Your task to perform on an android device: Open the calendar and show me this week's events? Image 0: 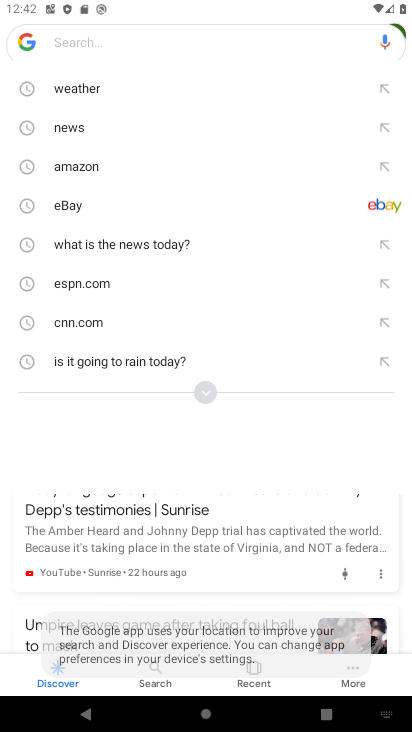
Step 0: press home button
Your task to perform on an android device: Open the calendar and show me this week's events? Image 1: 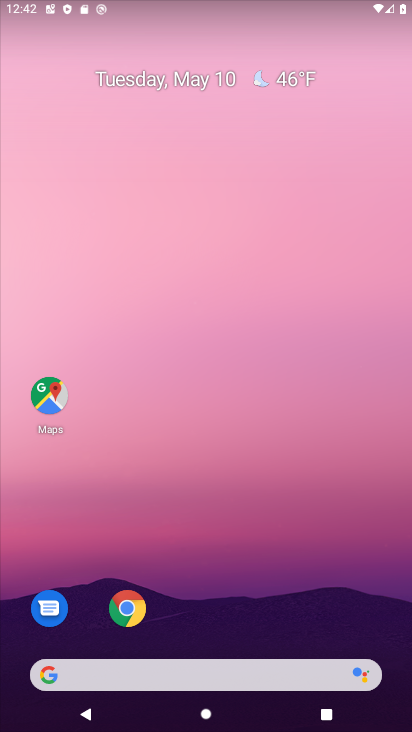
Step 1: drag from (233, 599) to (252, 42)
Your task to perform on an android device: Open the calendar and show me this week's events? Image 2: 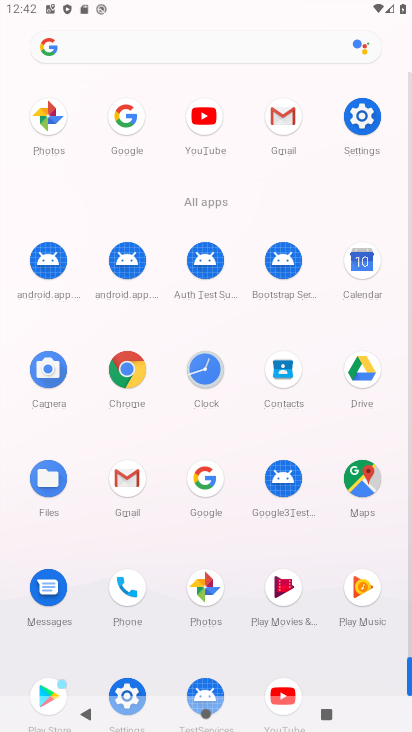
Step 2: click (356, 261)
Your task to perform on an android device: Open the calendar and show me this week's events? Image 3: 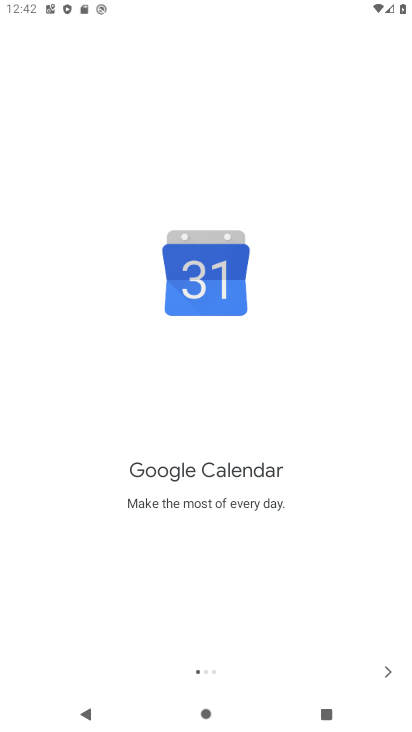
Step 3: click (386, 676)
Your task to perform on an android device: Open the calendar and show me this week's events? Image 4: 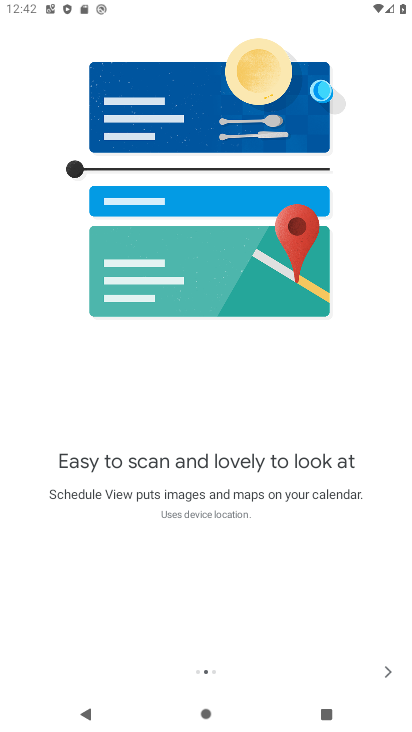
Step 4: click (386, 676)
Your task to perform on an android device: Open the calendar and show me this week's events? Image 5: 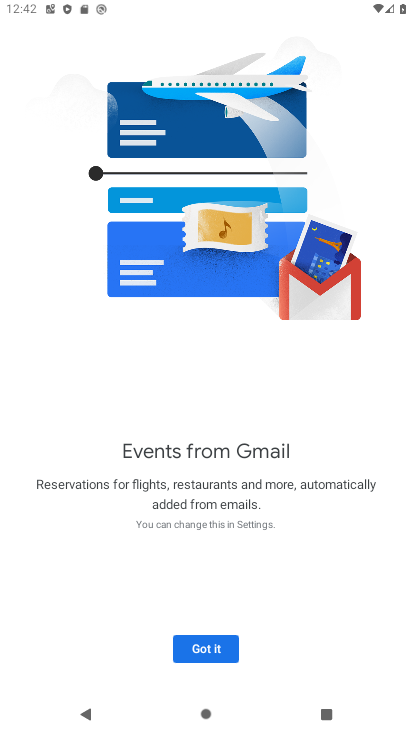
Step 5: click (217, 652)
Your task to perform on an android device: Open the calendar and show me this week's events? Image 6: 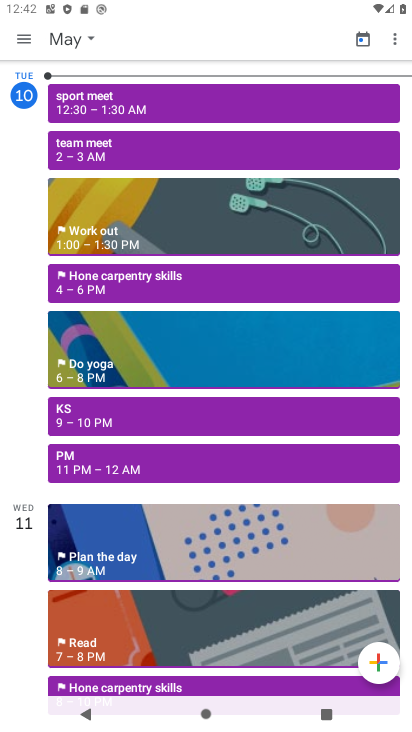
Step 6: click (81, 38)
Your task to perform on an android device: Open the calendar and show me this week's events? Image 7: 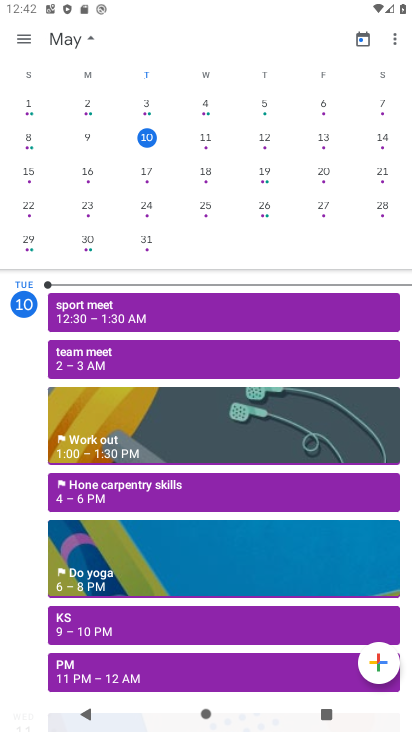
Step 7: click (271, 136)
Your task to perform on an android device: Open the calendar and show me this week's events? Image 8: 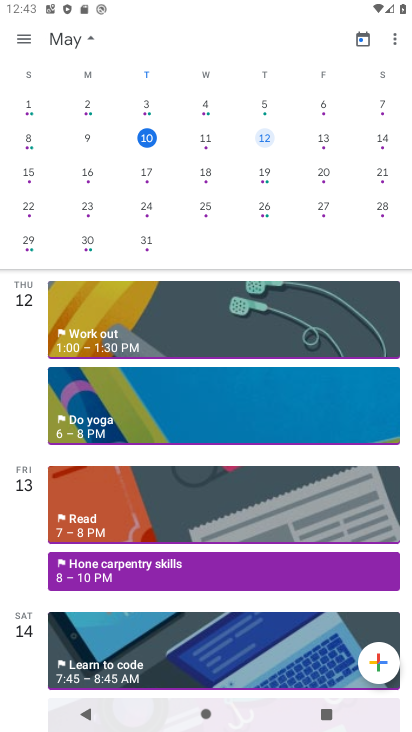
Step 8: task complete